Your task to perform on an android device: Open calendar and show me the fourth week of next month Image 0: 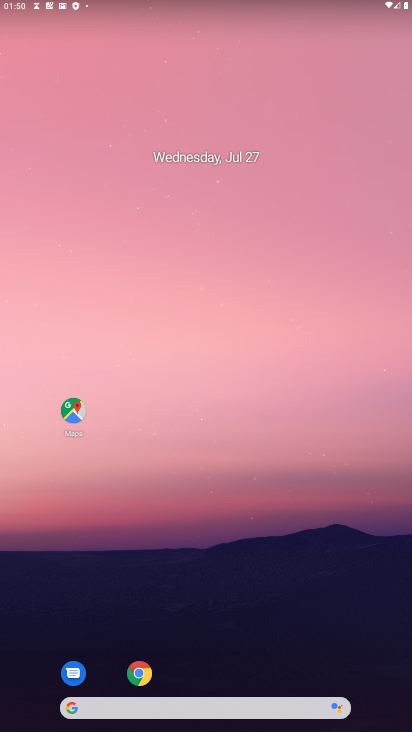
Step 0: drag from (262, 624) to (239, 147)
Your task to perform on an android device: Open calendar and show me the fourth week of next month Image 1: 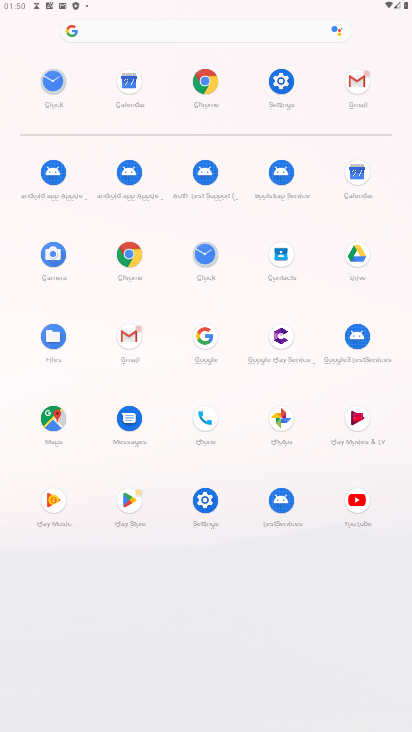
Step 1: click (349, 166)
Your task to perform on an android device: Open calendar and show me the fourth week of next month Image 2: 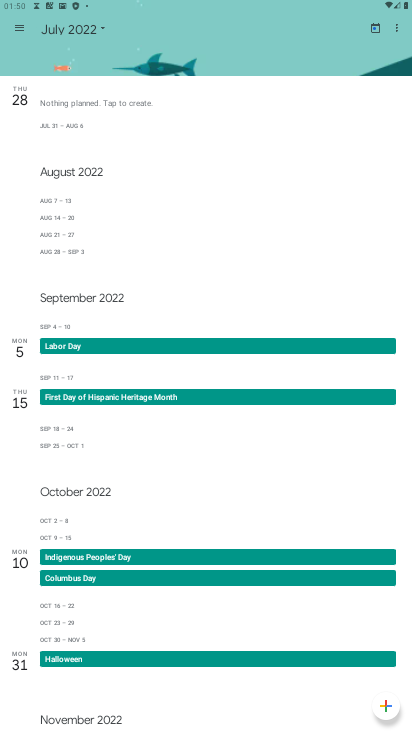
Step 2: click (8, 24)
Your task to perform on an android device: Open calendar and show me the fourth week of next month Image 3: 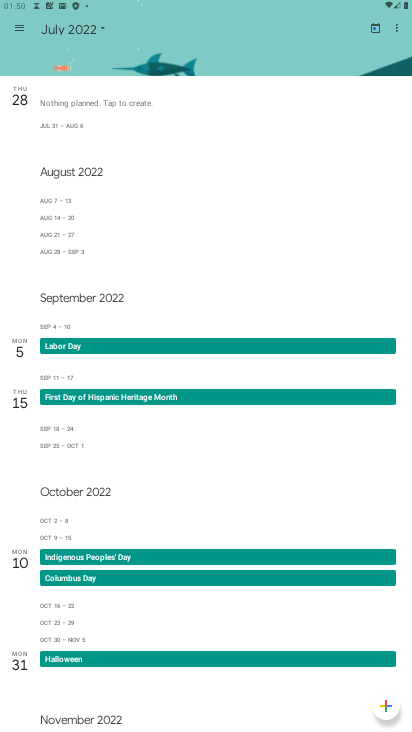
Step 3: click (18, 27)
Your task to perform on an android device: Open calendar and show me the fourth week of next month Image 4: 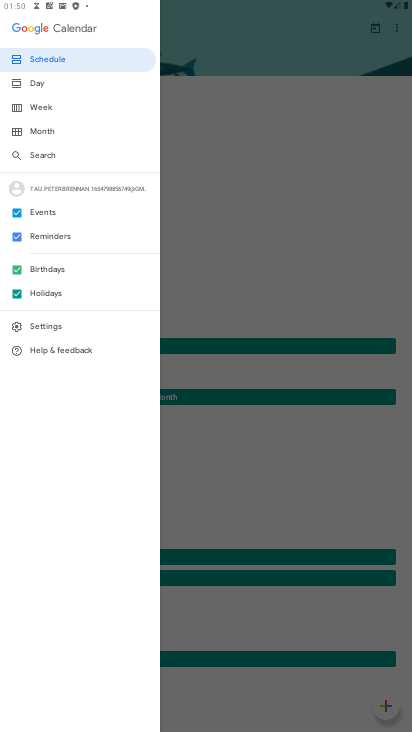
Step 4: click (57, 134)
Your task to perform on an android device: Open calendar and show me the fourth week of next month Image 5: 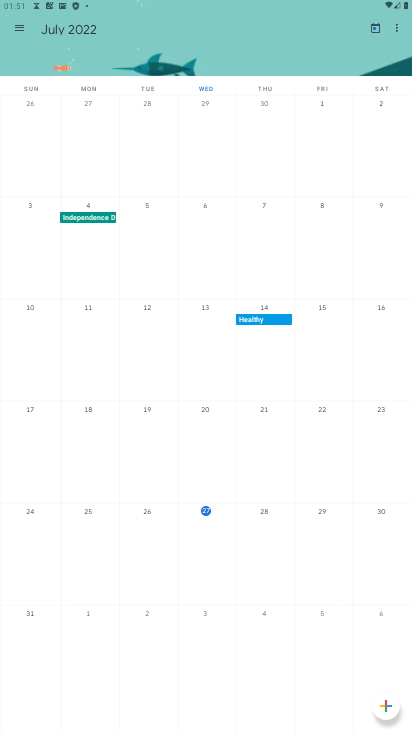
Step 5: drag from (338, 224) to (8, 370)
Your task to perform on an android device: Open calendar and show me the fourth week of next month Image 6: 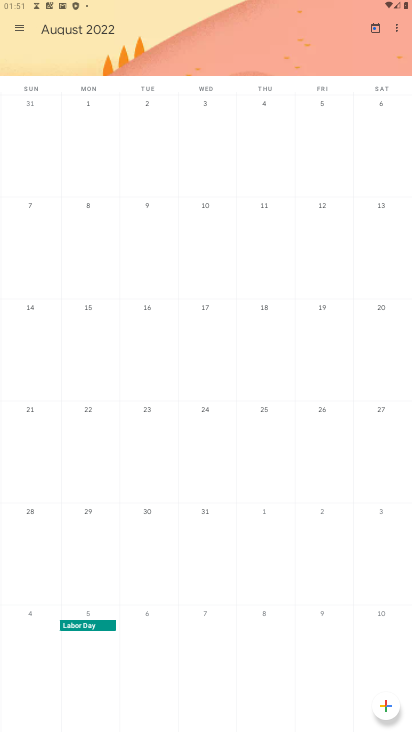
Step 6: click (12, 21)
Your task to perform on an android device: Open calendar and show me the fourth week of next month Image 7: 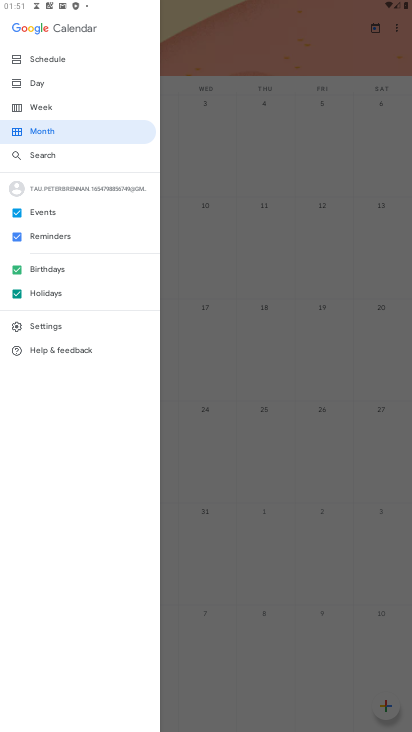
Step 7: click (59, 110)
Your task to perform on an android device: Open calendar and show me the fourth week of next month Image 8: 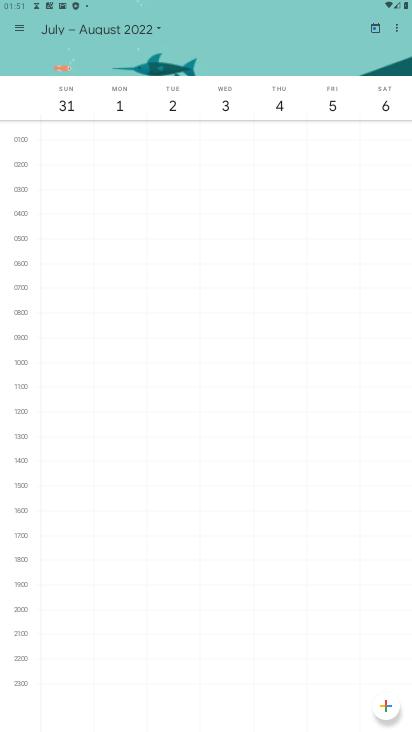
Step 8: click (309, 82)
Your task to perform on an android device: Open calendar and show me the fourth week of next month Image 9: 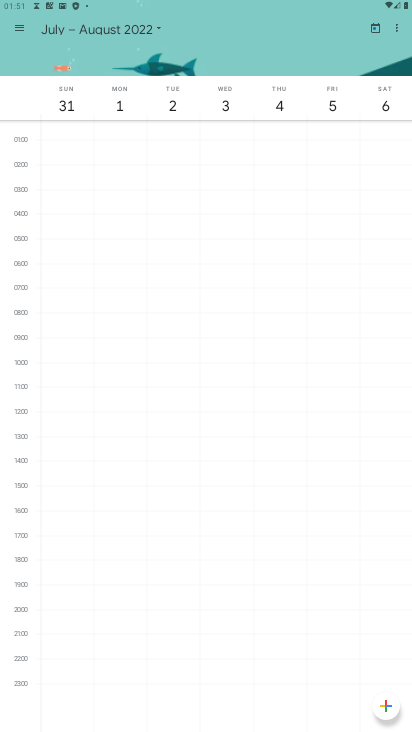
Step 9: task complete